Your task to perform on an android device: Open battery settings Image 0: 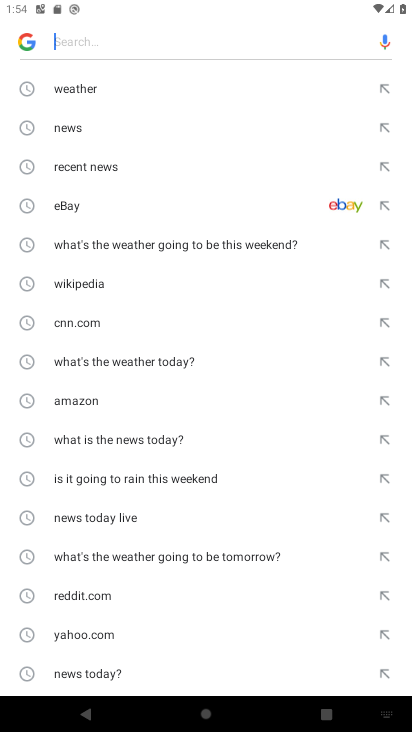
Step 0: press home button
Your task to perform on an android device: Open battery settings Image 1: 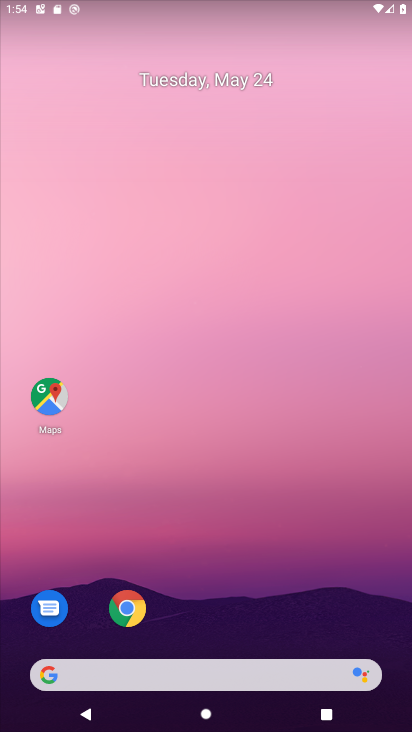
Step 1: click (286, 608)
Your task to perform on an android device: Open battery settings Image 2: 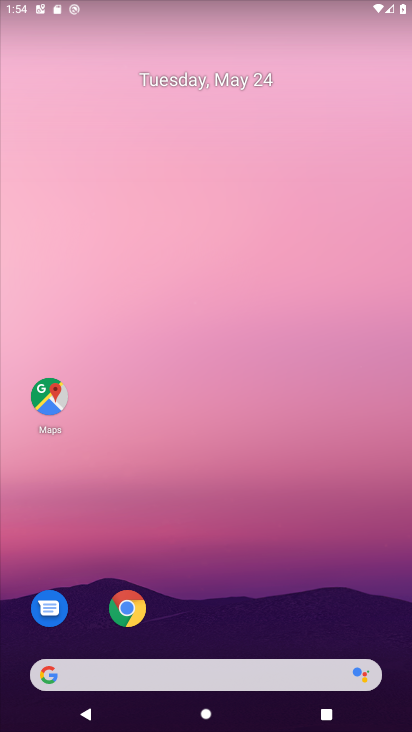
Step 2: drag from (286, 608) to (401, 48)
Your task to perform on an android device: Open battery settings Image 3: 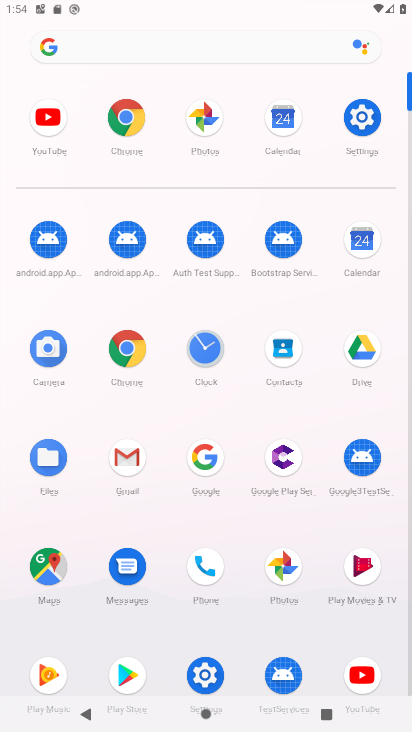
Step 3: click (370, 147)
Your task to perform on an android device: Open battery settings Image 4: 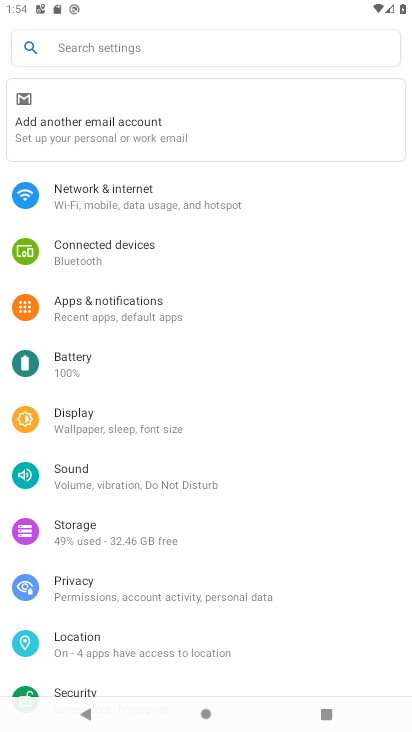
Step 4: click (207, 352)
Your task to perform on an android device: Open battery settings Image 5: 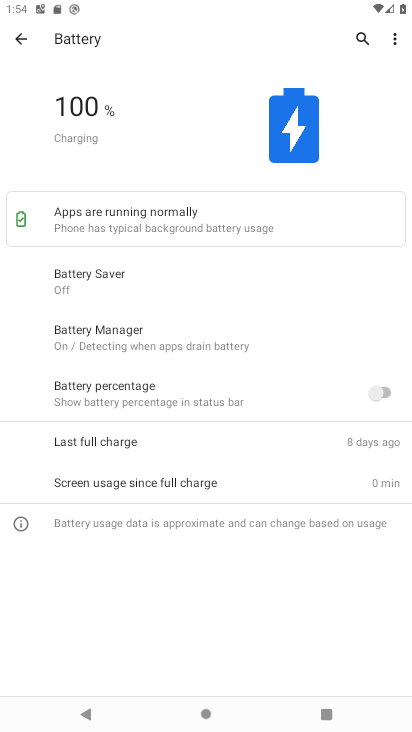
Step 5: task complete